Your task to perform on an android device: set the timer Image 0: 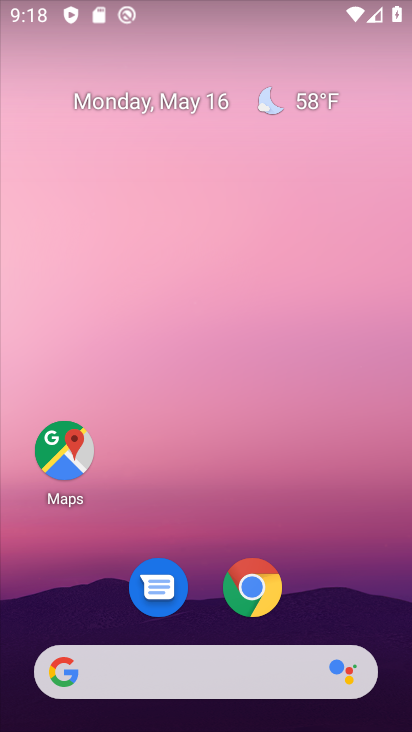
Step 0: drag from (306, 561) to (280, 67)
Your task to perform on an android device: set the timer Image 1: 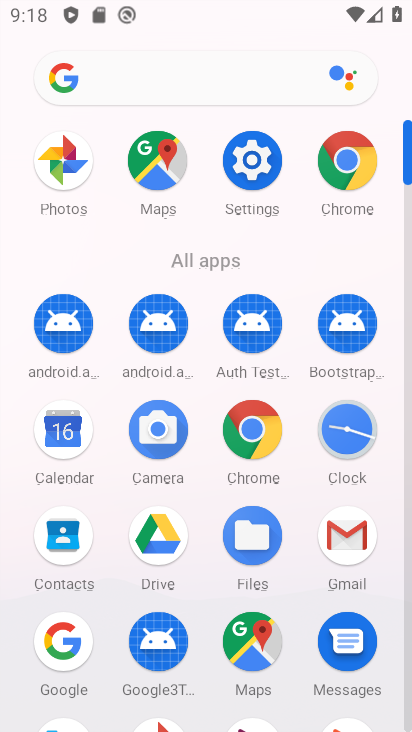
Step 1: click (352, 456)
Your task to perform on an android device: set the timer Image 2: 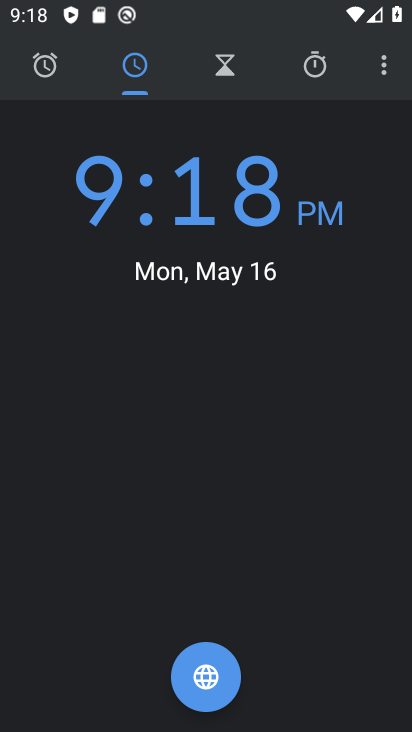
Step 2: click (219, 79)
Your task to perform on an android device: set the timer Image 3: 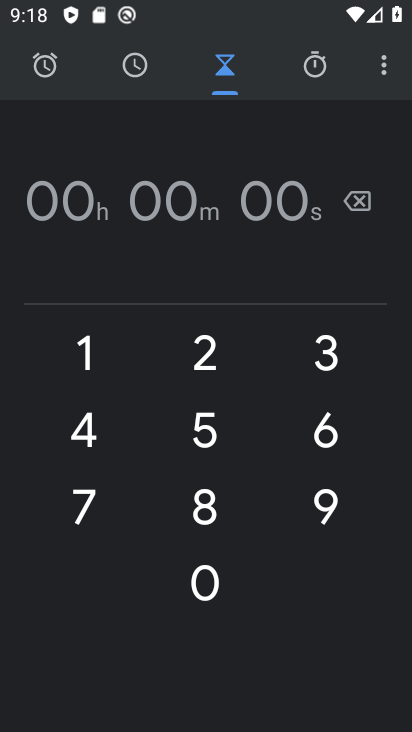
Step 3: click (204, 423)
Your task to perform on an android device: set the timer Image 4: 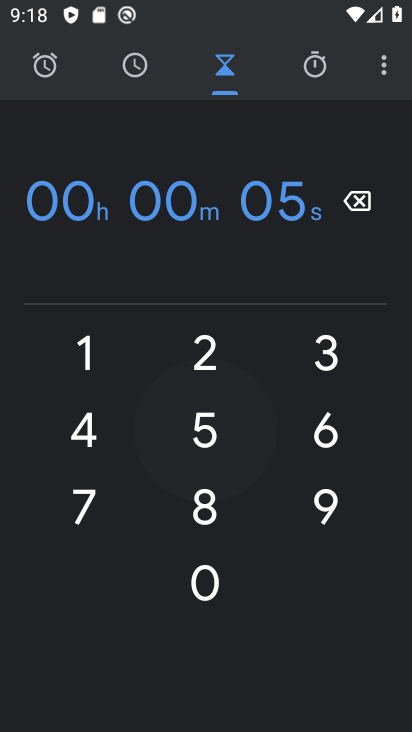
Step 4: click (204, 423)
Your task to perform on an android device: set the timer Image 5: 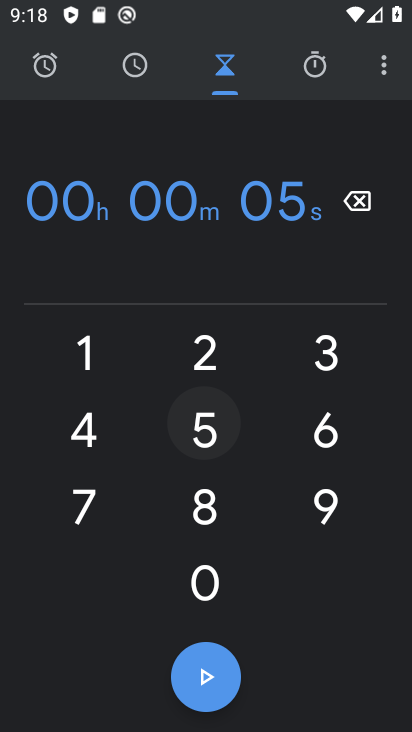
Step 5: click (204, 423)
Your task to perform on an android device: set the timer Image 6: 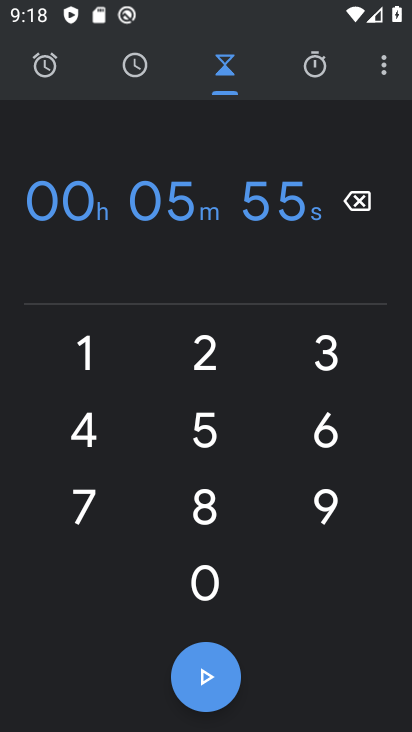
Step 6: click (186, 362)
Your task to perform on an android device: set the timer Image 7: 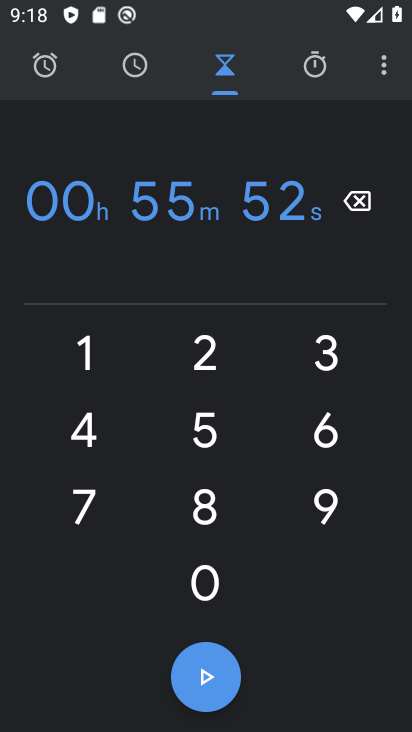
Step 7: click (198, 423)
Your task to perform on an android device: set the timer Image 8: 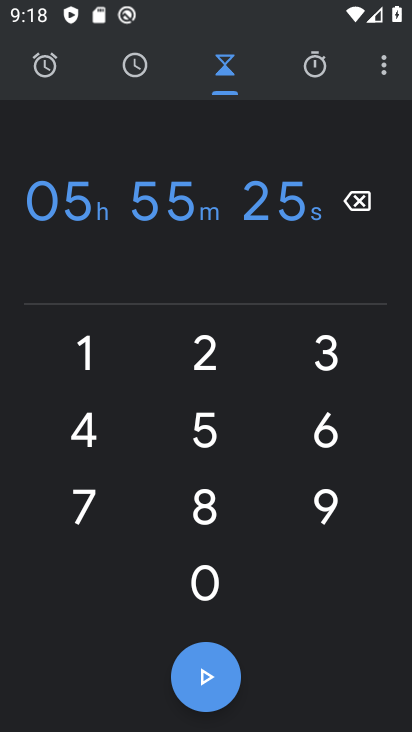
Step 8: click (207, 662)
Your task to perform on an android device: set the timer Image 9: 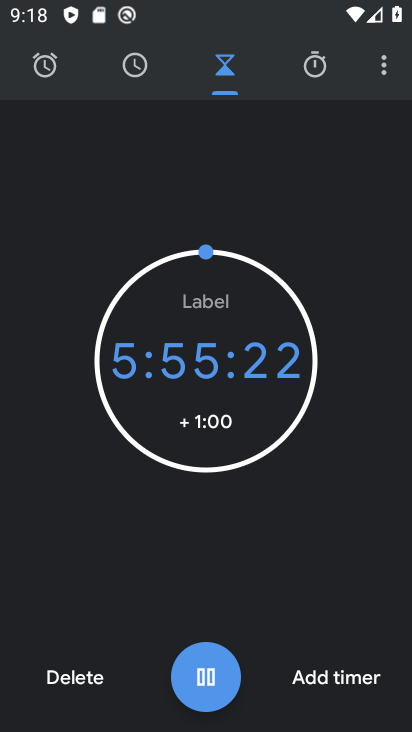
Step 9: task complete